Your task to perform on an android device: turn off translation in the chrome app Image 0: 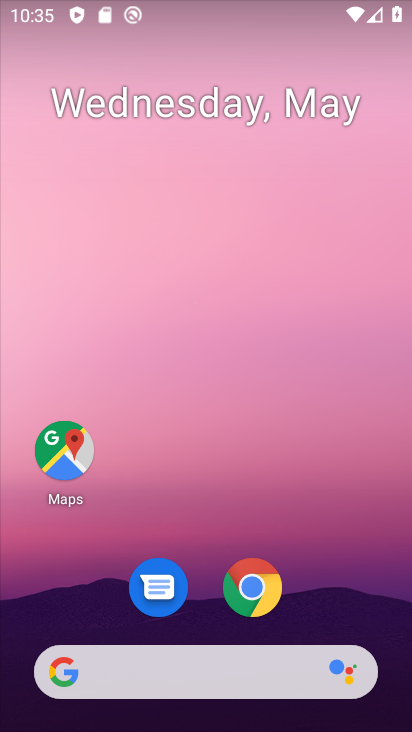
Step 0: click (264, 597)
Your task to perform on an android device: turn off translation in the chrome app Image 1: 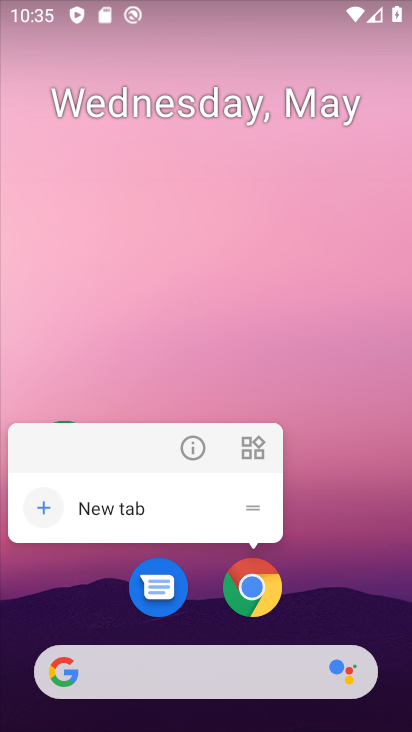
Step 1: click (255, 593)
Your task to perform on an android device: turn off translation in the chrome app Image 2: 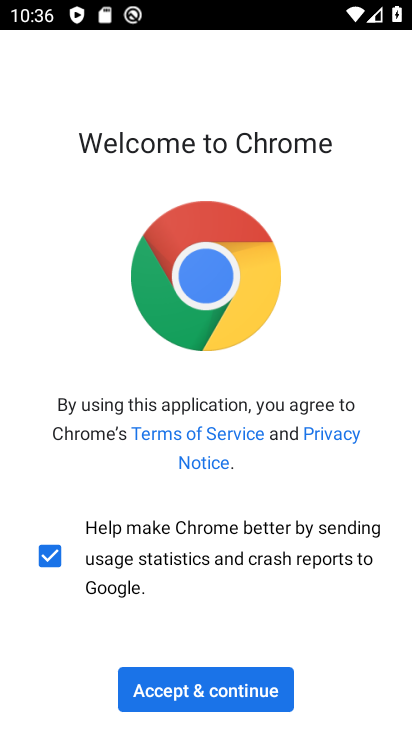
Step 2: click (194, 669)
Your task to perform on an android device: turn off translation in the chrome app Image 3: 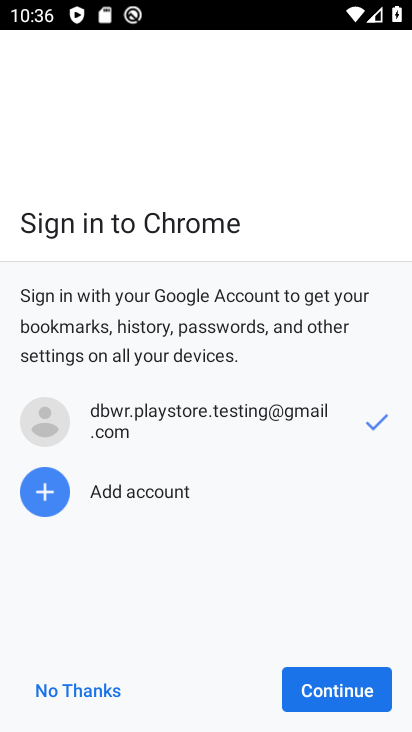
Step 3: click (350, 691)
Your task to perform on an android device: turn off translation in the chrome app Image 4: 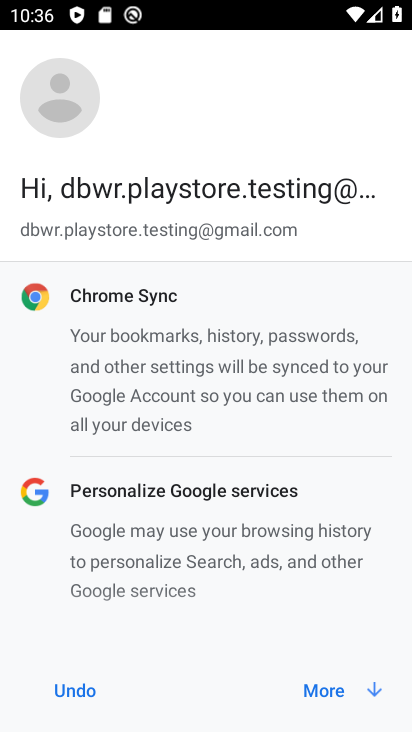
Step 4: click (336, 698)
Your task to perform on an android device: turn off translation in the chrome app Image 5: 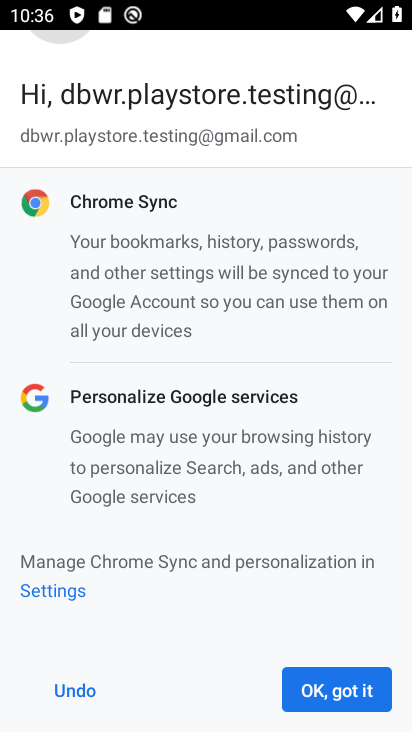
Step 5: click (331, 689)
Your task to perform on an android device: turn off translation in the chrome app Image 6: 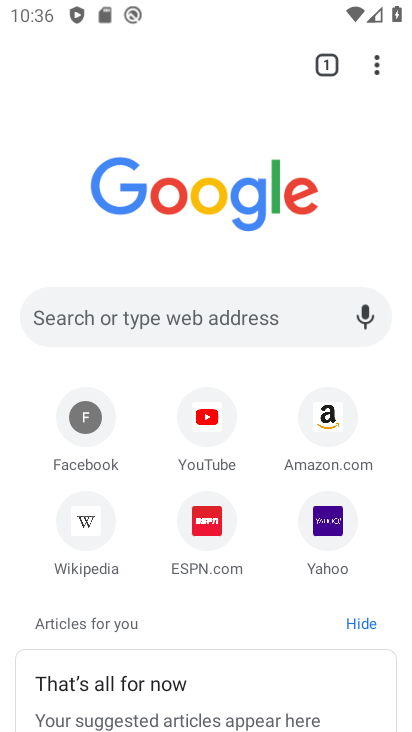
Step 6: click (376, 57)
Your task to perform on an android device: turn off translation in the chrome app Image 7: 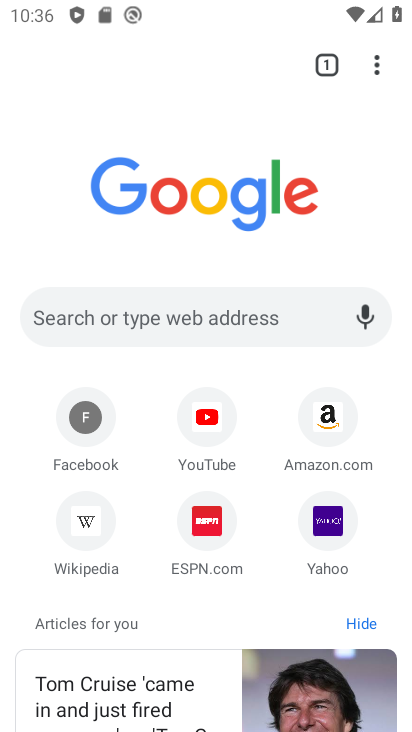
Step 7: drag from (371, 65) to (164, 553)
Your task to perform on an android device: turn off translation in the chrome app Image 8: 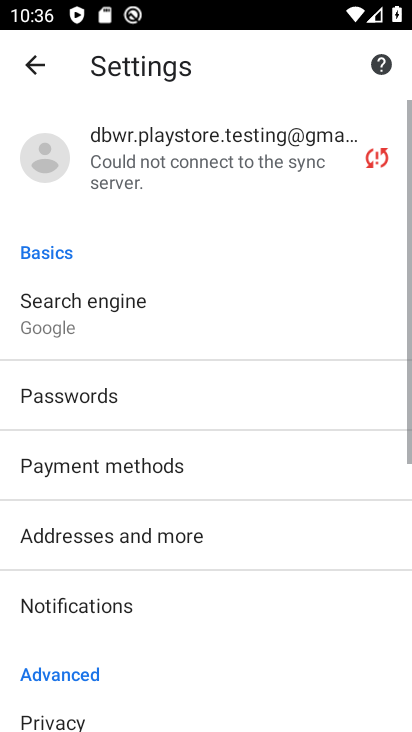
Step 8: drag from (161, 613) to (287, 155)
Your task to perform on an android device: turn off translation in the chrome app Image 9: 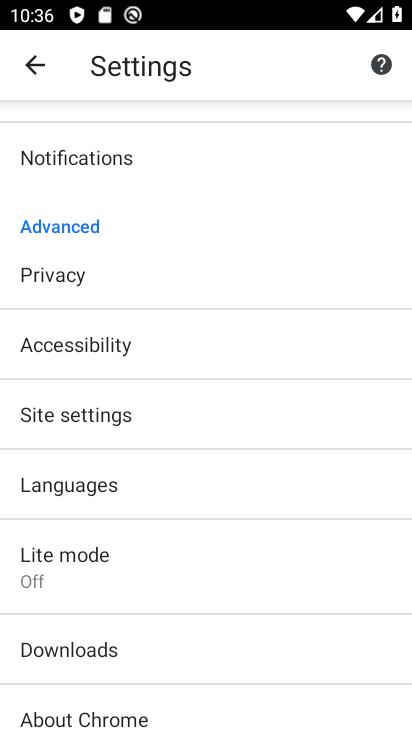
Step 9: click (64, 474)
Your task to perform on an android device: turn off translation in the chrome app Image 10: 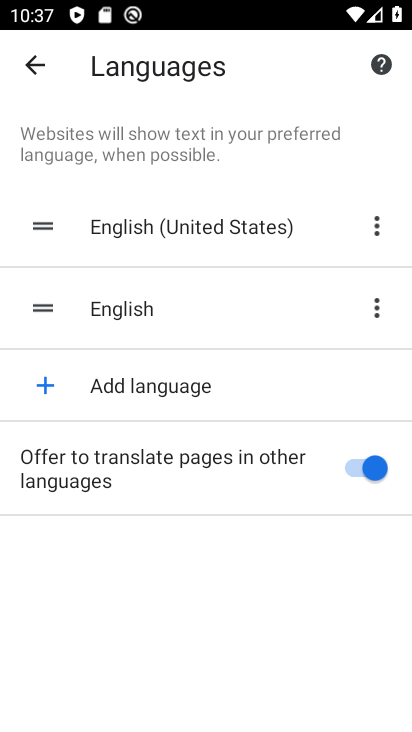
Step 10: click (368, 469)
Your task to perform on an android device: turn off translation in the chrome app Image 11: 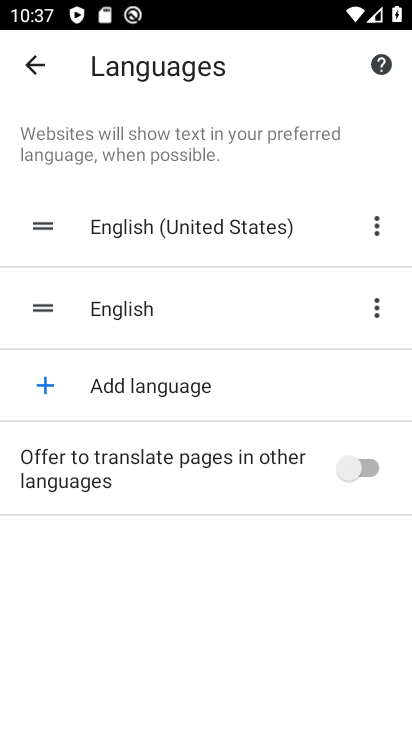
Step 11: task complete